Your task to perform on an android device: Search for pizza restaurants on Maps Image 0: 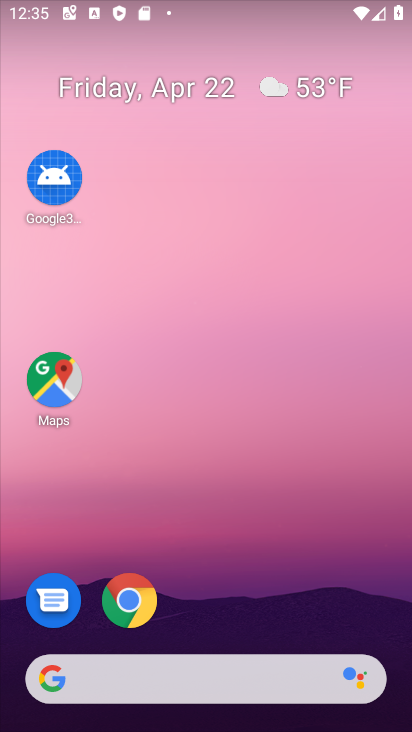
Step 0: click (58, 369)
Your task to perform on an android device: Search for pizza restaurants on Maps Image 1: 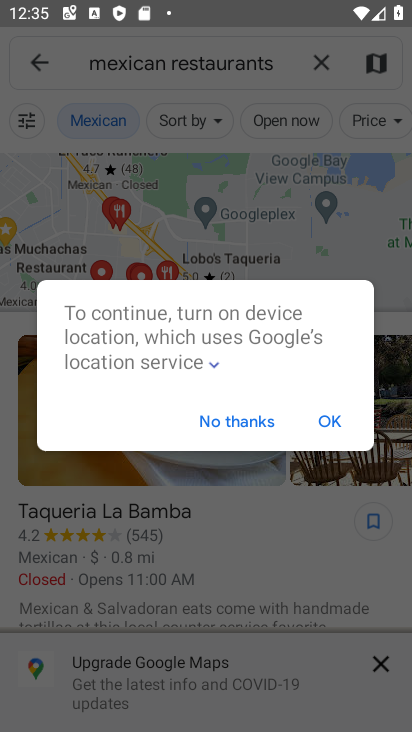
Step 1: click (225, 418)
Your task to perform on an android device: Search for pizza restaurants on Maps Image 2: 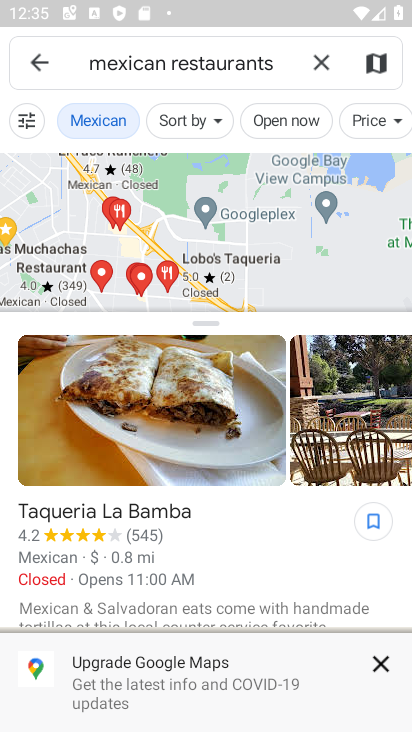
Step 2: click (313, 68)
Your task to perform on an android device: Search for pizza restaurants on Maps Image 3: 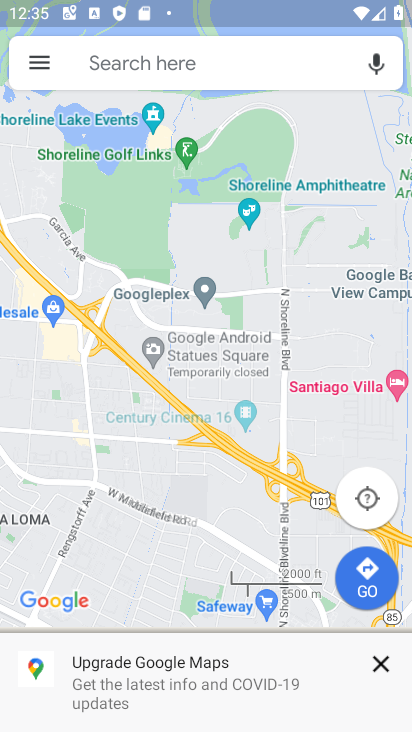
Step 3: click (223, 55)
Your task to perform on an android device: Search for pizza restaurants on Maps Image 4: 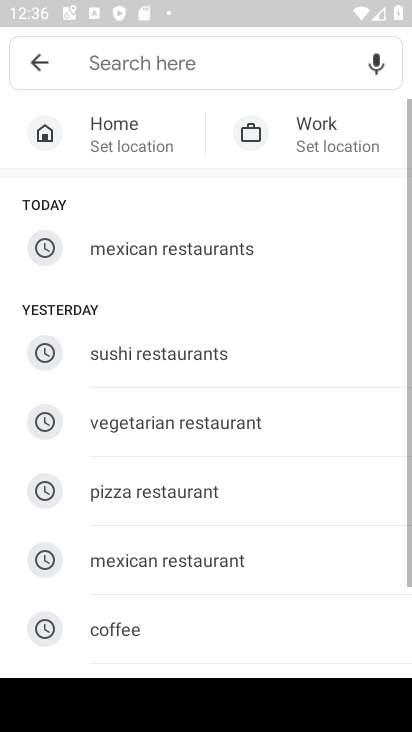
Step 4: click (220, 284)
Your task to perform on an android device: Search for pizza restaurants on Maps Image 5: 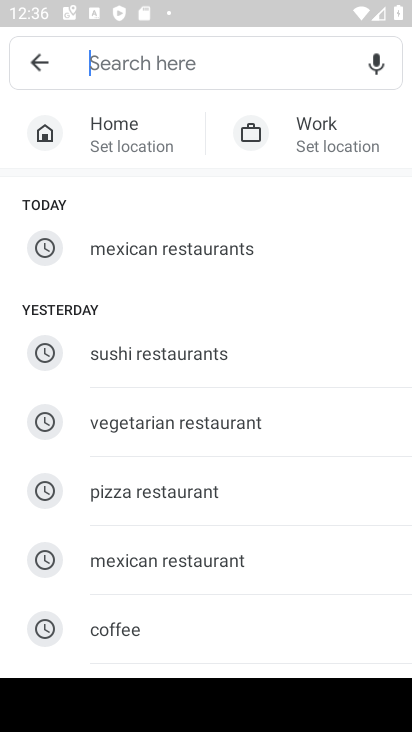
Step 5: click (192, 501)
Your task to perform on an android device: Search for pizza restaurants on Maps Image 6: 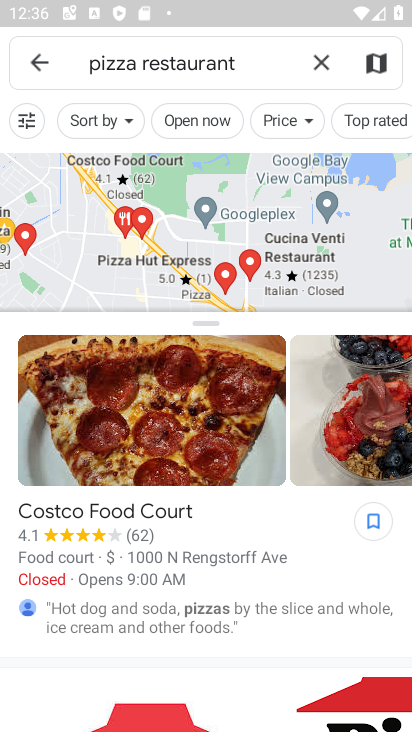
Step 6: task complete